Your task to perform on an android device: toggle notifications settings in the gmail app Image 0: 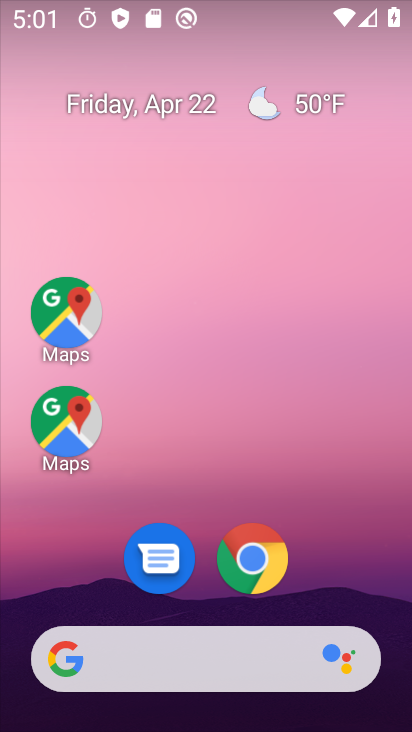
Step 0: drag from (323, 593) to (240, 180)
Your task to perform on an android device: toggle notifications settings in the gmail app Image 1: 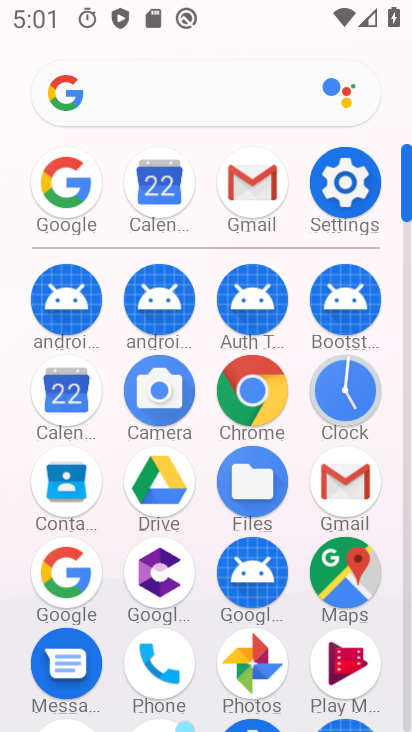
Step 1: click (357, 484)
Your task to perform on an android device: toggle notifications settings in the gmail app Image 2: 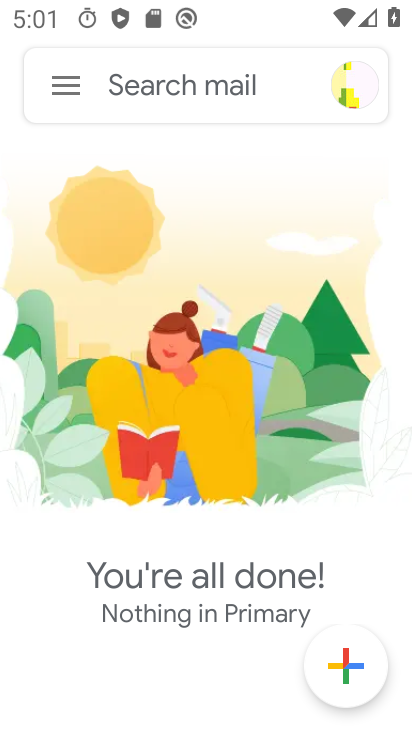
Step 2: click (67, 86)
Your task to perform on an android device: toggle notifications settings in the gmail app Image 3: 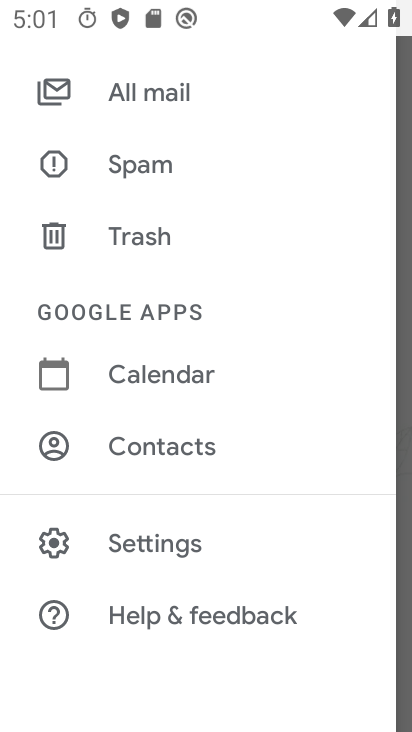
Step 3: click (166, 541)
Your task to perform on an android device: toggle notifications settings in the gmail app Image 4: 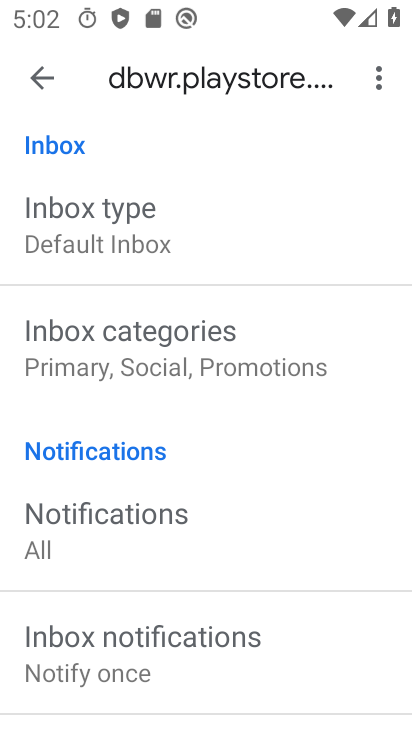
Step 4: drag from (281, 601) to (274, 366)
Your task to perform on an android device: toggle notifications settings in the gmail app Image 5: 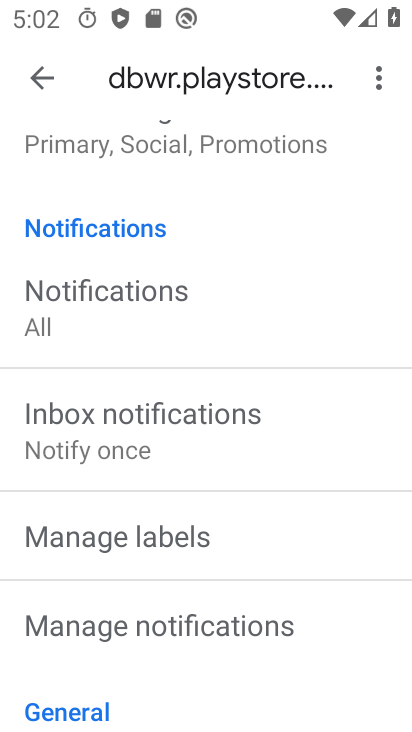
Step 5: drag from (328, 268) to (296, 593)
Your task to perform on an android device: toggle notifications settings in the gmail app Image 6: 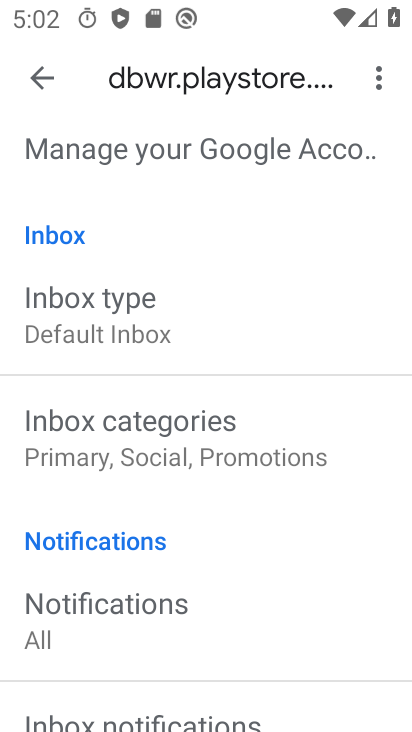
Step 6: drag from (297, 334) to (262, 588)
Your task to perform on an android device: toggle notifications settings in the gmail app Image 7: 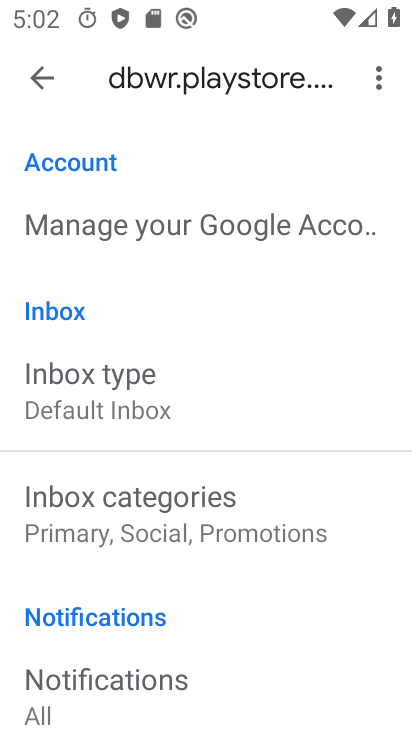
Step 7: click (66, 664)
Your task to perform on an android device: toggle notifications settings in the gmail app Image 8: 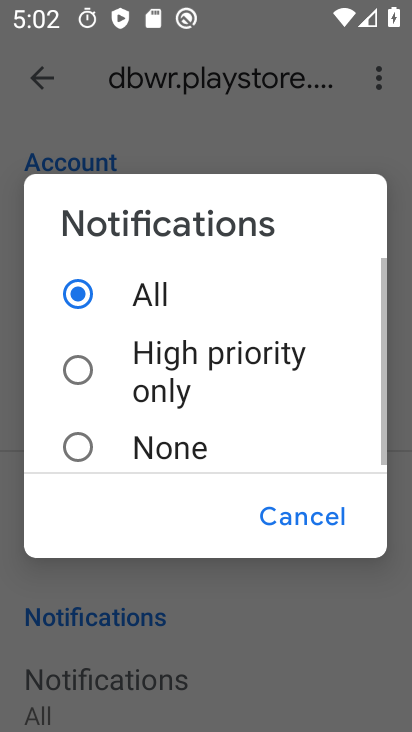
Step 8: click (74, 466)
Your task to perform on an android device: toggle notifications settings in the gmail app Image 9: 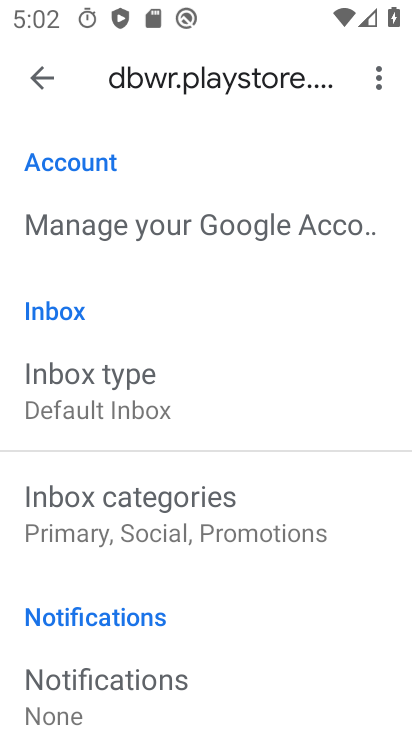
Step 9: task complete